Your task to perform on an android device: Open Google Chrome and open the bookmarks view Image 0: 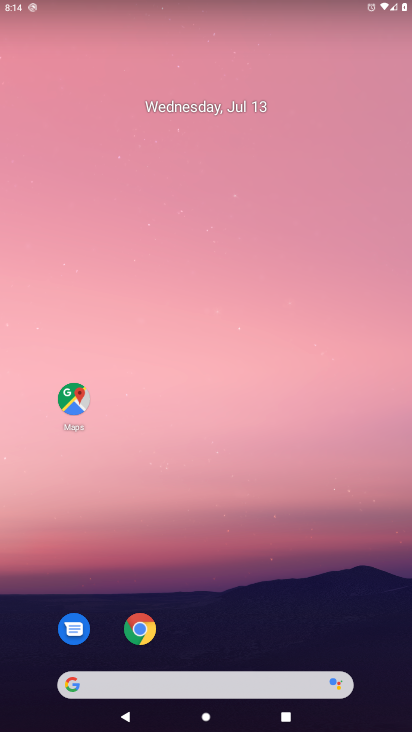
Step 0: click (143, 635)
Your task to perform on an android device: Open Google Chrome and open the bookmarks view Image 1: 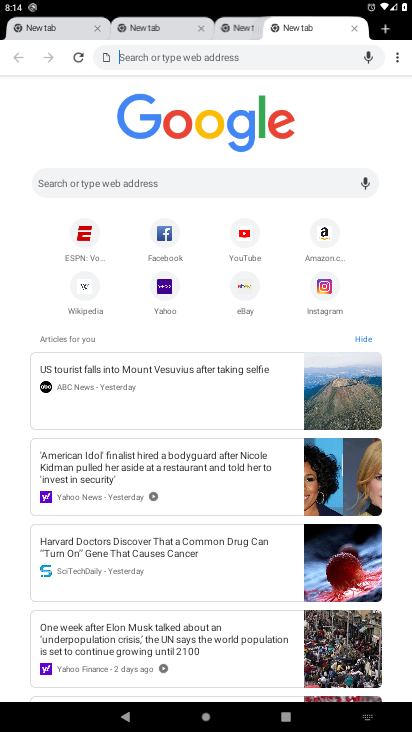
Step 1: click (399, 54)
Your task to perform on an android device: Open Google Chrome and open the bookmarks view Image 2: 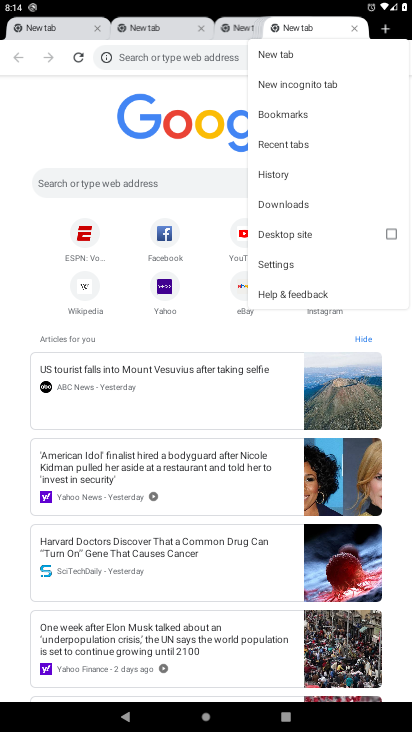
Step 2: click (285, 112)
Your task to perform on an android device: Open Google Chrome and open the bookmarks view Image 3: 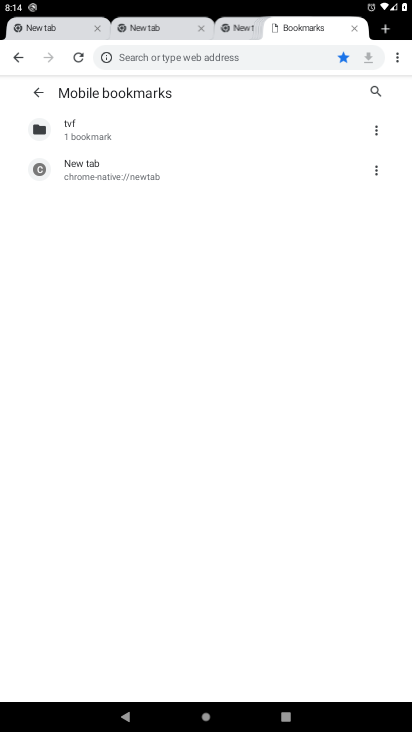
Step 3: task complete